Your task to perform on an android device: Go to Wikipedia Image 0: 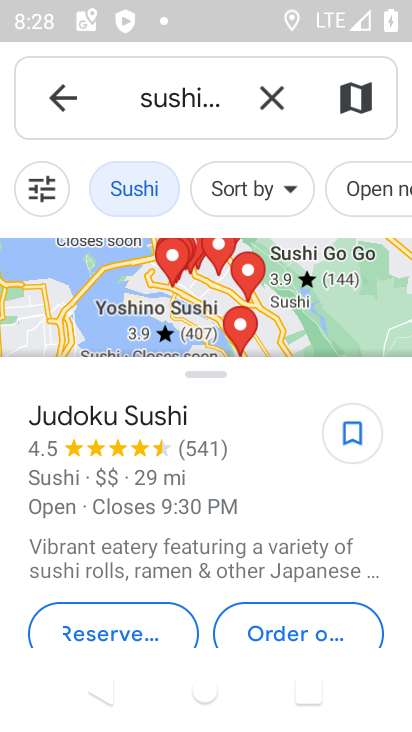
Step 0: press home button
Your task to perform on an android device: Go to Wikipedia Image 1: 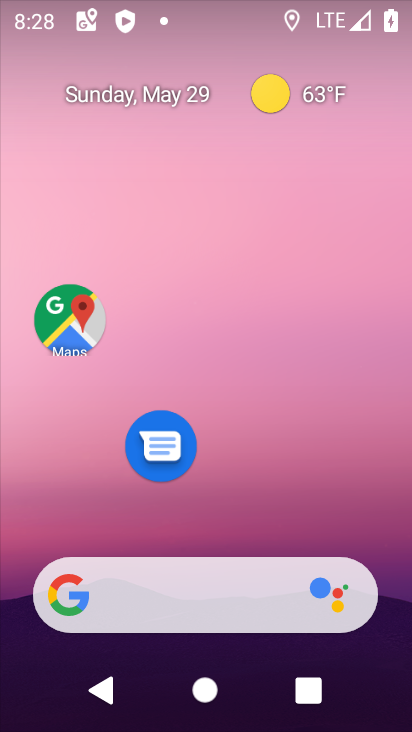
Step 1: drag from (212, 507) to (216, 193)
Your task to perform on an android device: Go to Wikipedia Image 2: 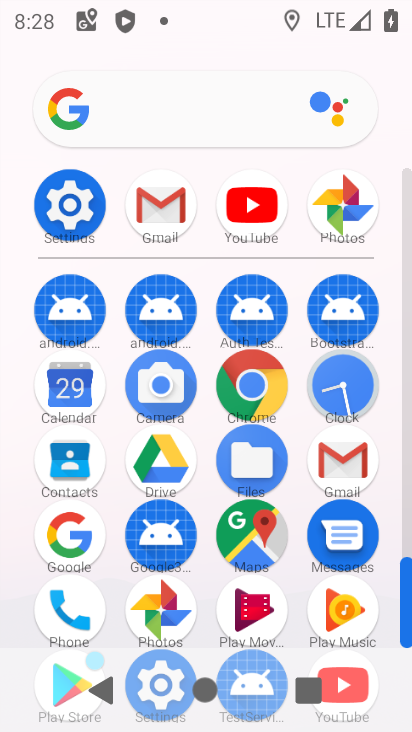
Step 2: click (239, 388)
Your task to perform on an android device: Go to Wikipedia Image 3: 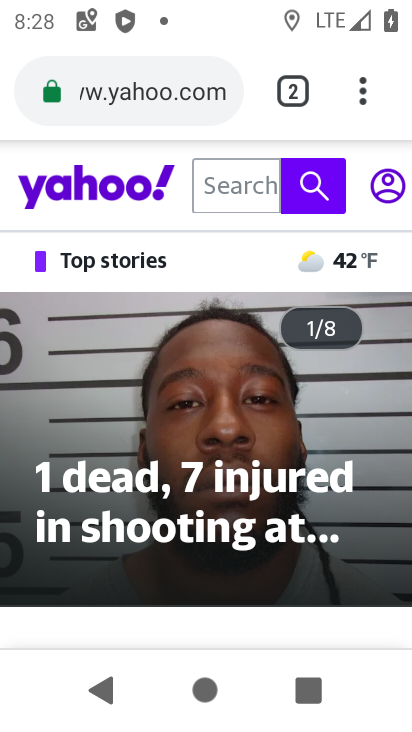
Step 3: click (276, 80)
Your task to perform on an android device: Go to Wikipedia Image 4: 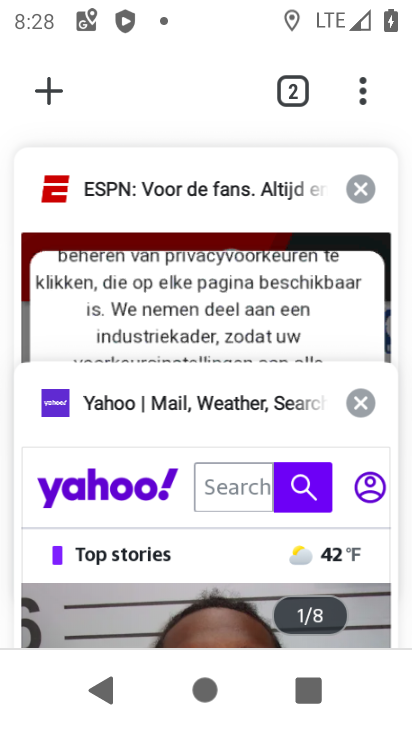
Step 4: click (61, 91)
Your task to perform on an android device: Go to Wikipedia Image 5: 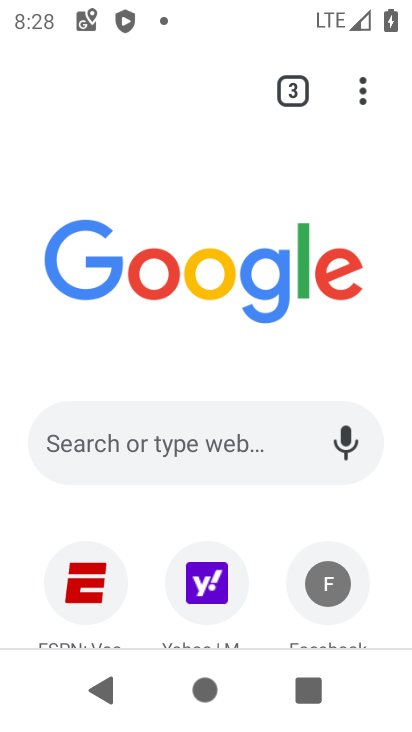
Step 5: click (232, 432)
Your task to perform on an android device: Go to Wikipedia Image 6: 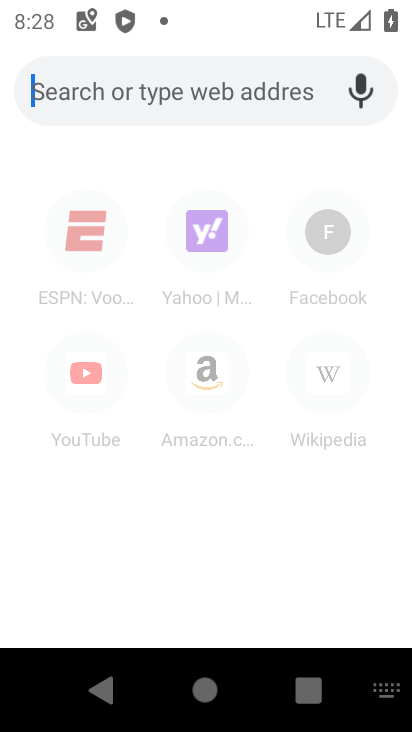
Step 6: type " Wikipedia"
Your task to perform on an android device: Go to Wikipedia Image 7: 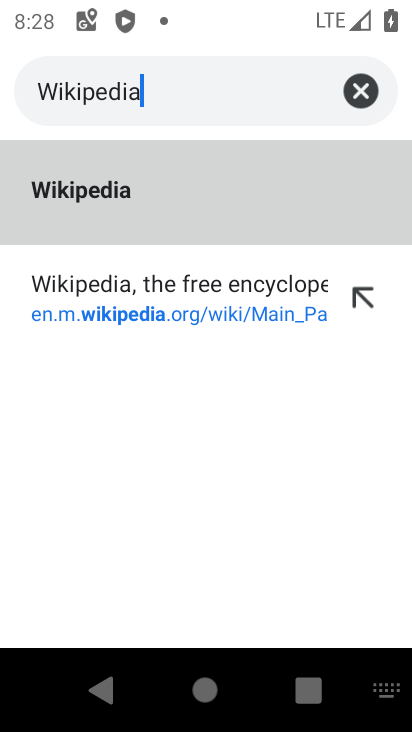
Step 7: click (188, 189)
Your task to perform on an android device: Go to Wikipedia Image 8: 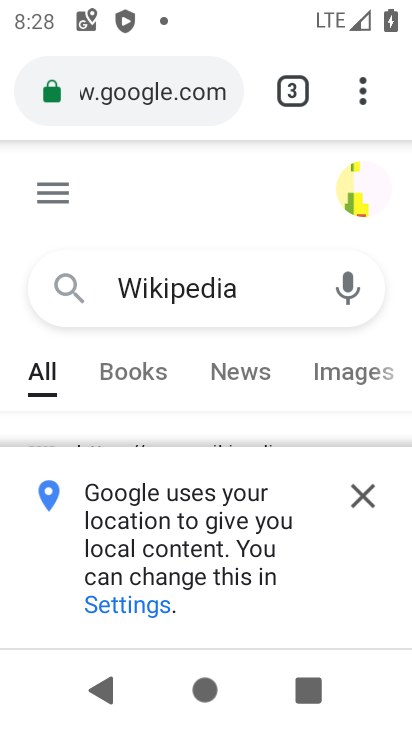
Step 8: click (360, 488)
Your task to perform on an android device: Go to Wikipedia Image 9: 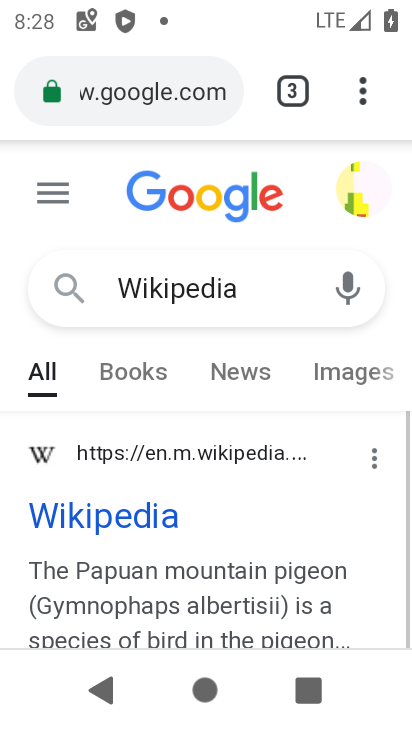
Step 9: click (151, 501)
Your task to perform on an android device: Go to Wikipedia Image 10: 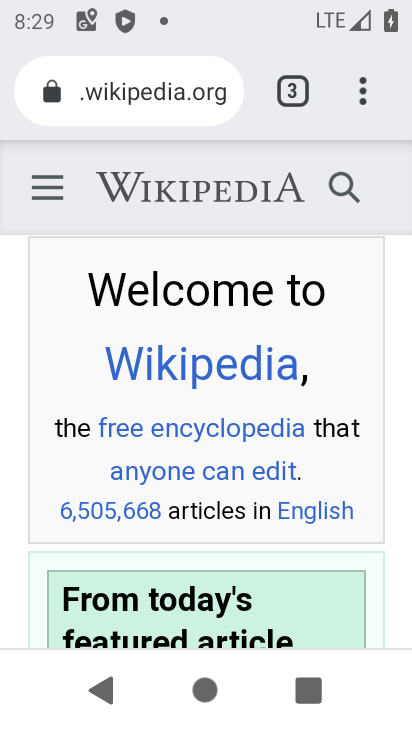
Step 10: task complete